Your task to perform on an android device: How do I get to the nearest electronics store? Image 0: 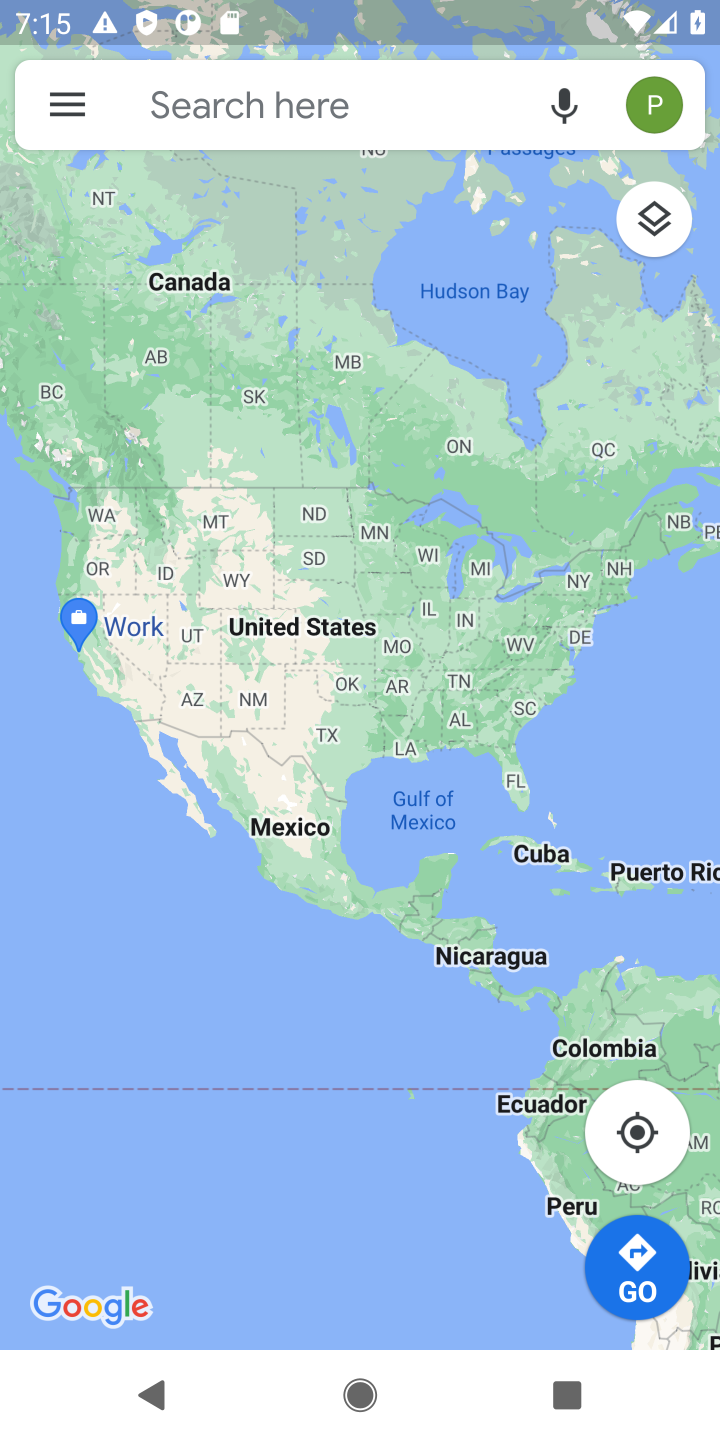
Step 0: click (351, 1408)
Your task to perform on an android device: How do I get to the nearest electronics store? Image 1: 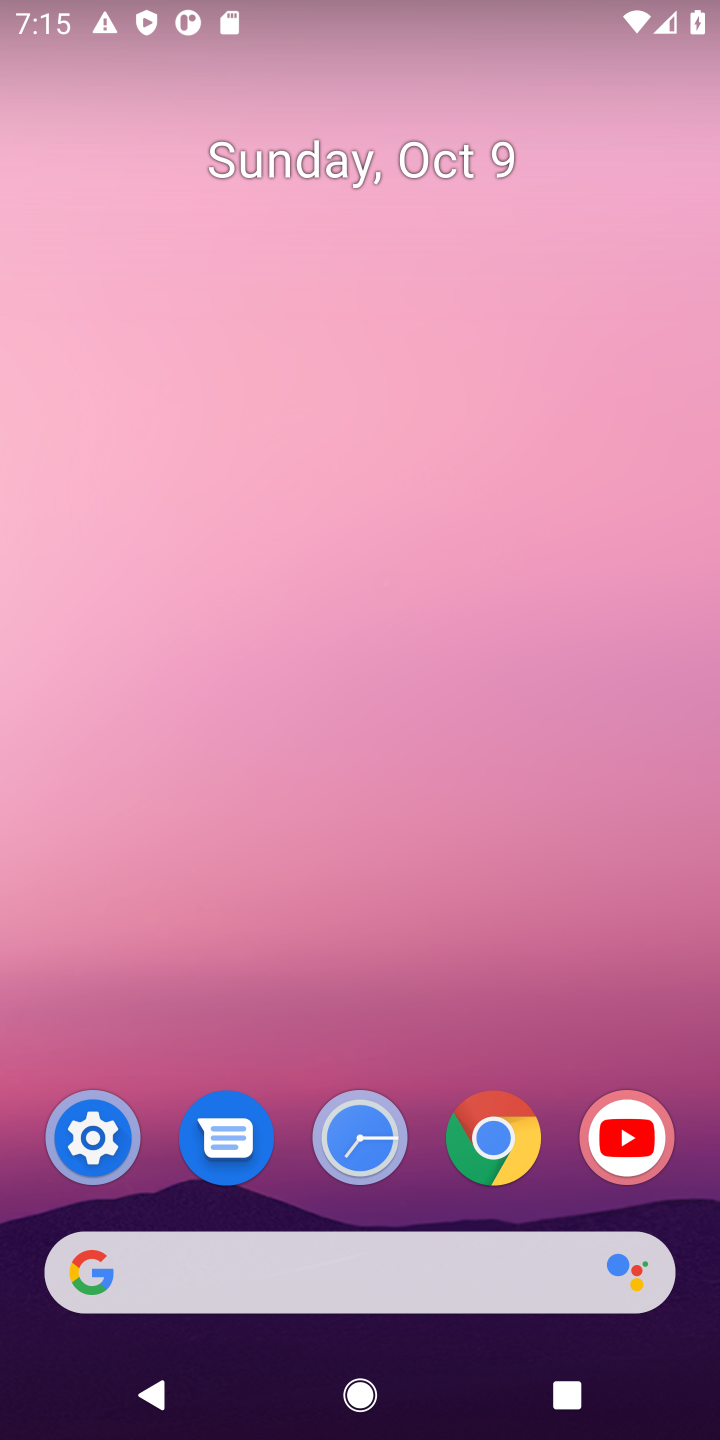
Step 1: drag from (461, 1209) to (496, 268)
Your task to perform on an android device: How do I get to the nearest electronics store? Image 2: 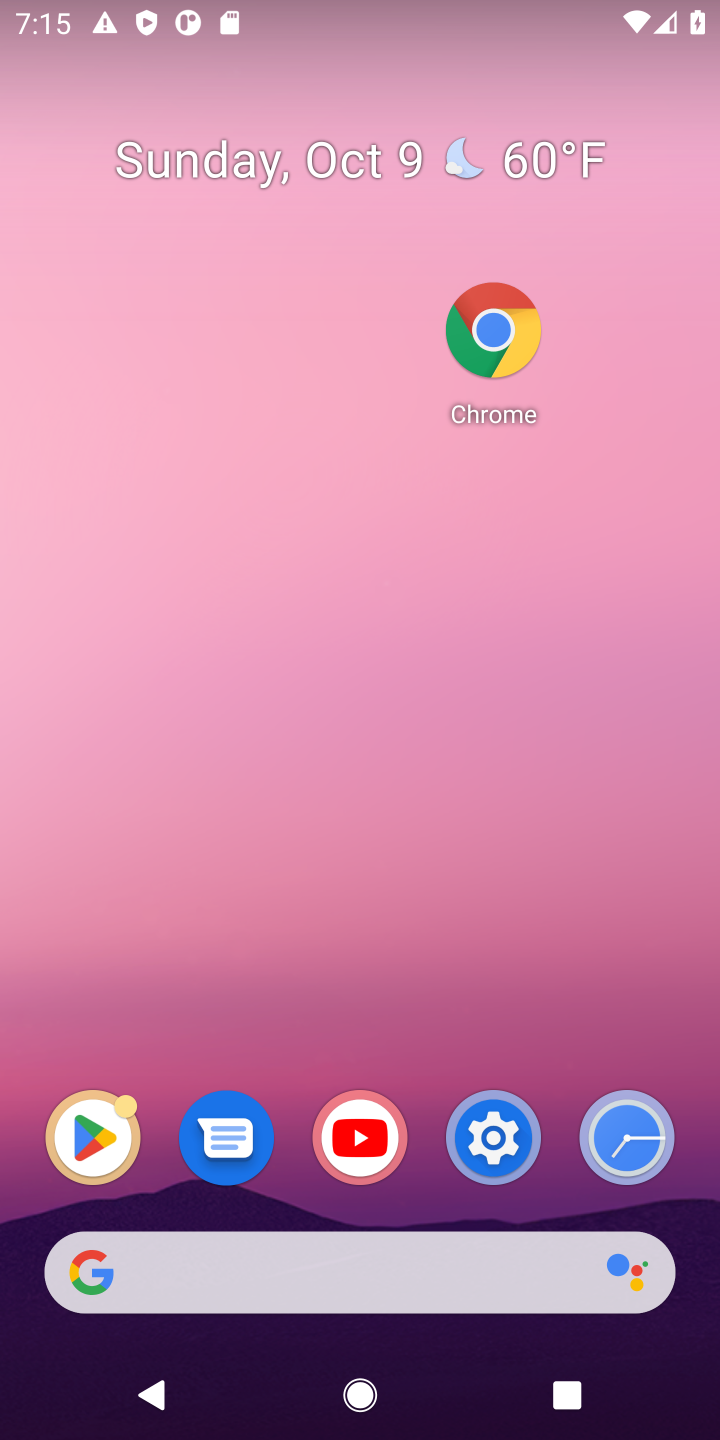
Step 2: drag from (449, 656) to (364, 33)
Your task to perform on an android device: How do I get to the nearest electronics store? Image 3: 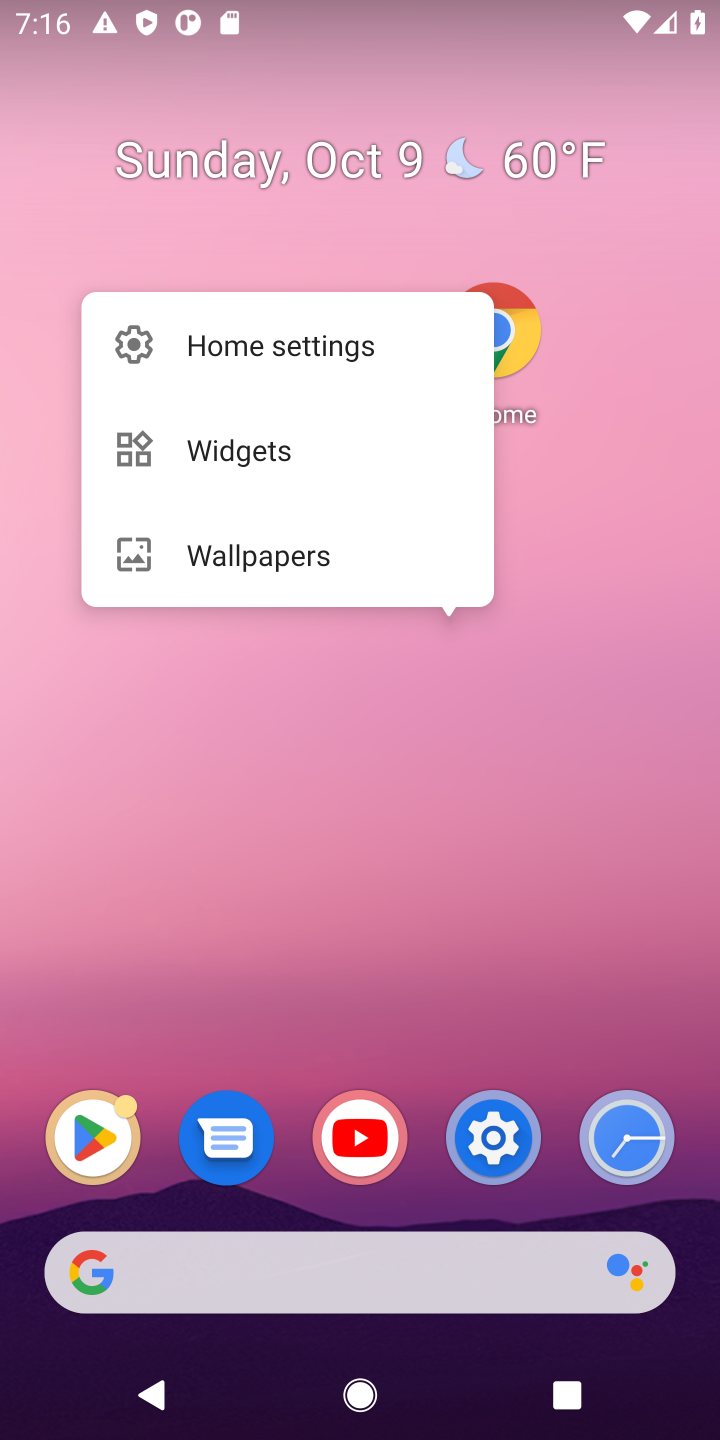
Step 3: drag from (427, 881) to (460, 564)
Your task to perform on an android device: How do I get to the nearest electronics store? Image 4: 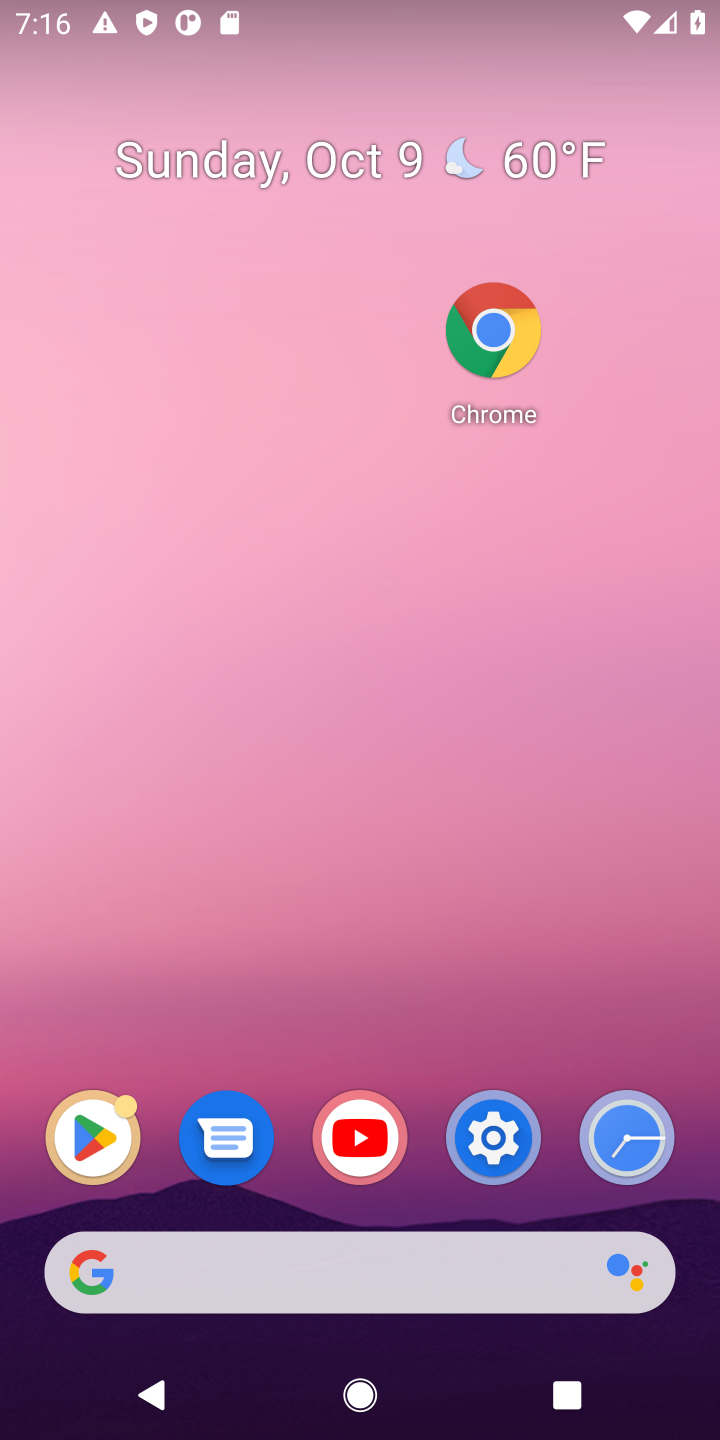
Step 4: drag from (475, 1043) to (473, 576)
Your task to perform on an android device: How do I get to the nearest electronics store? Image 5: 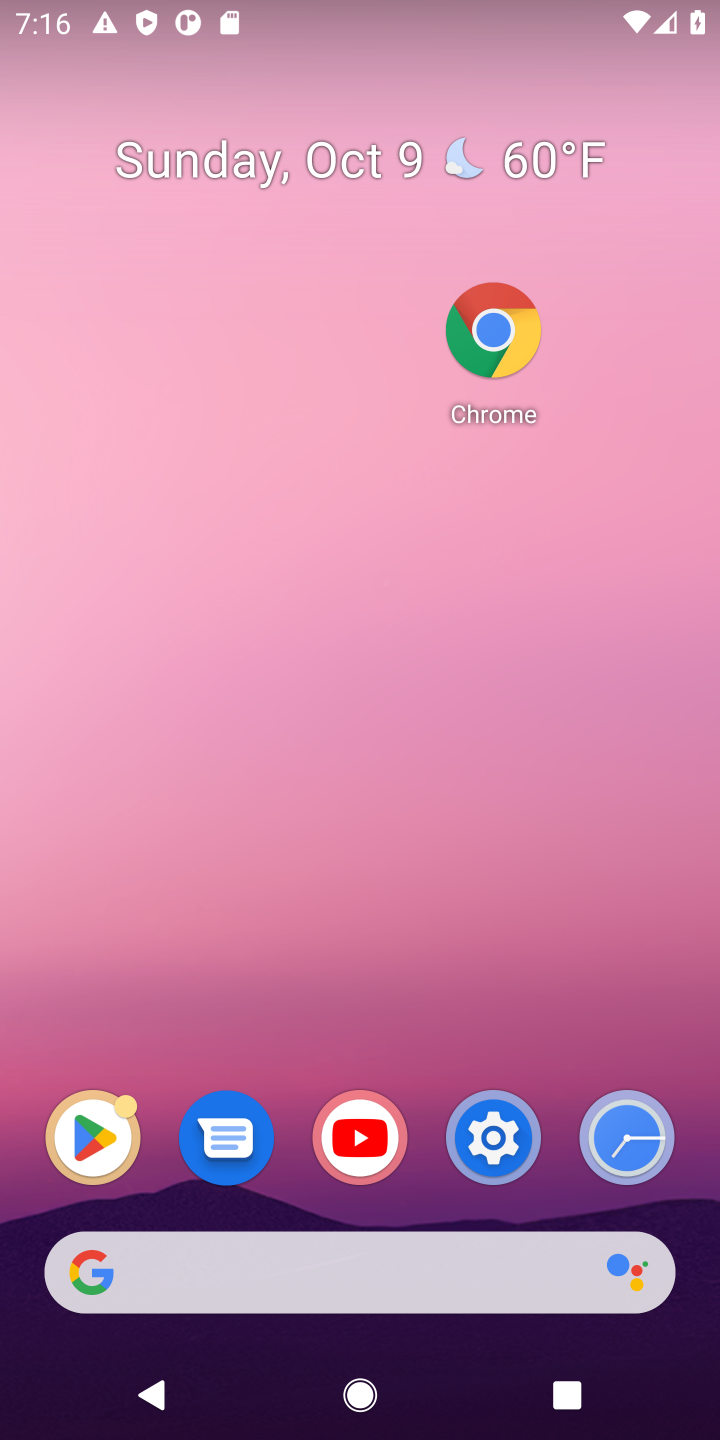
Step 5: drag from (522, 1022) to (536, 310)
Your task to perform on an android device: How do I get to the nearest electronics store? Image 6: 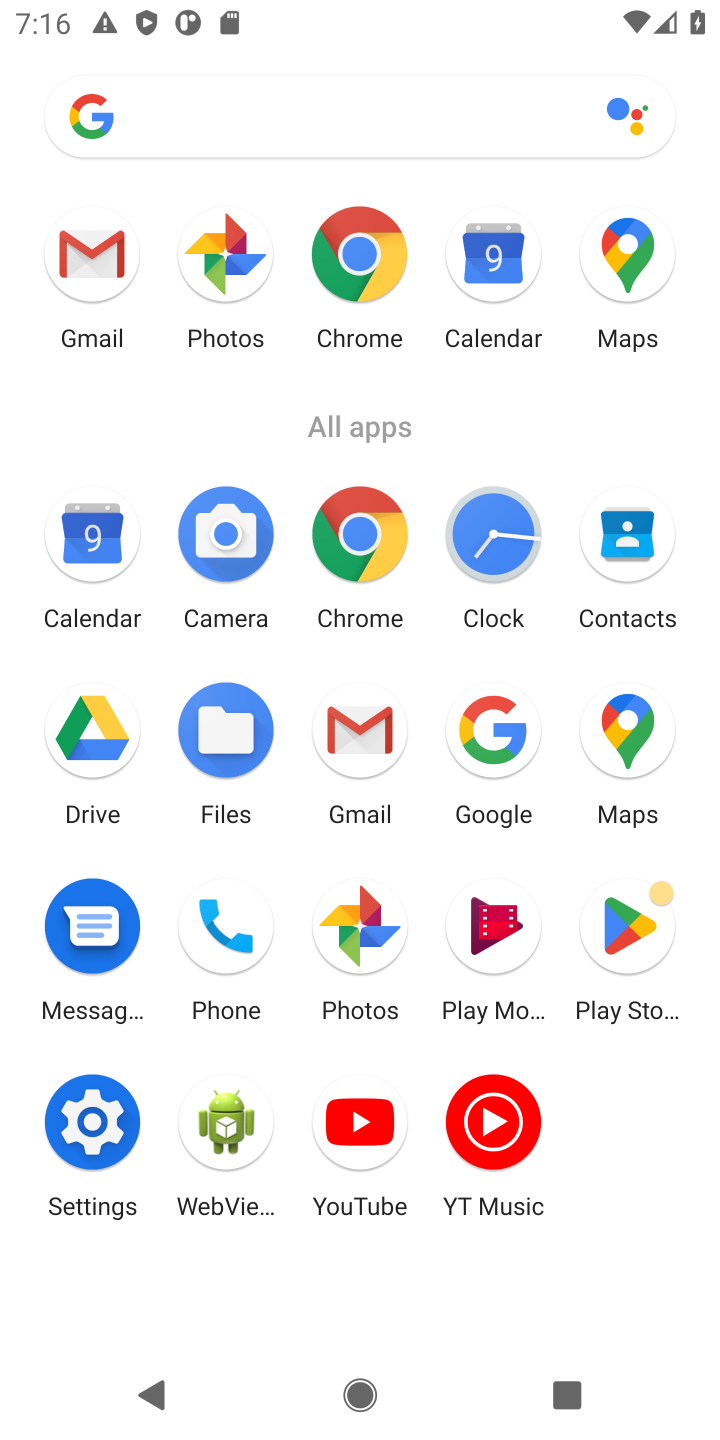
Step 6: click (628, 277)
Your task to perform on an android device: How do I get to the nearest electronics store? Image 7: 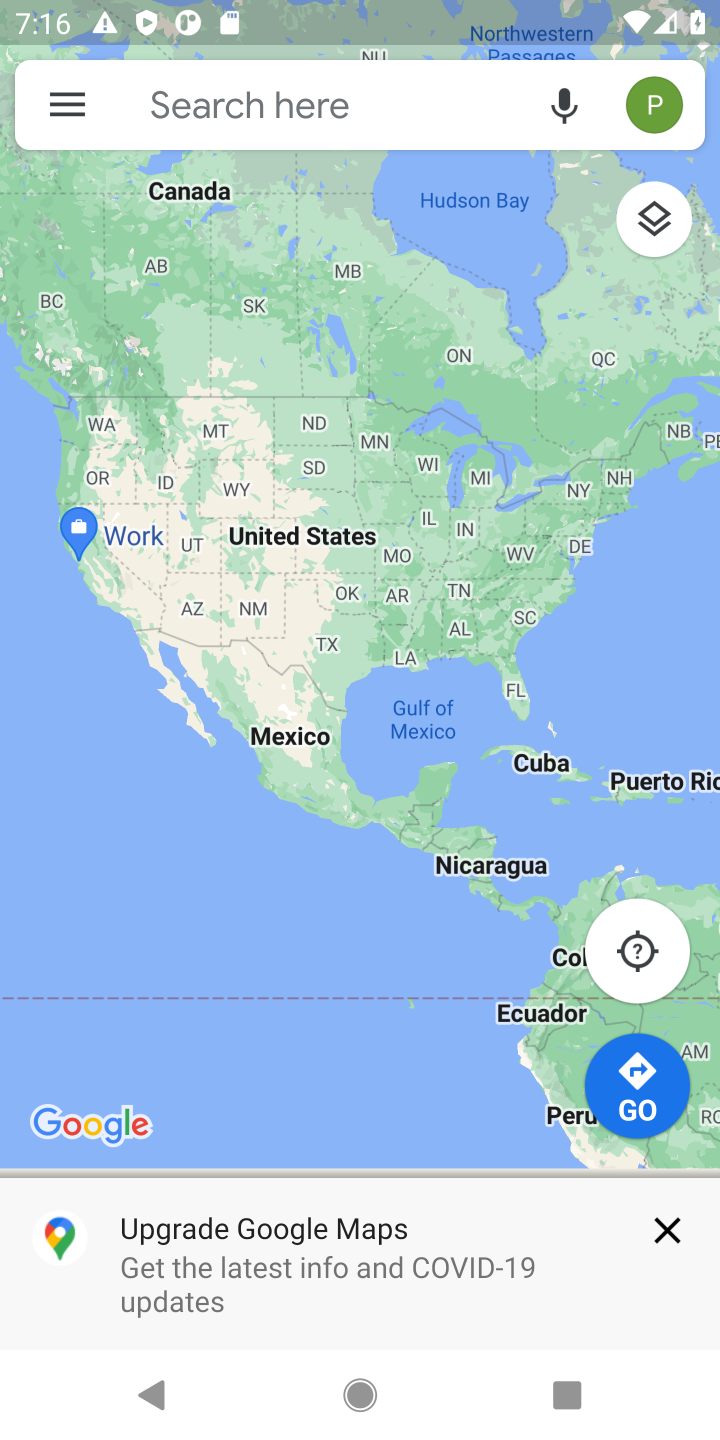
Step 7: click (210, 108)
Your task to perform on an android device: How do I get to the nearest electronics store? Image 8: 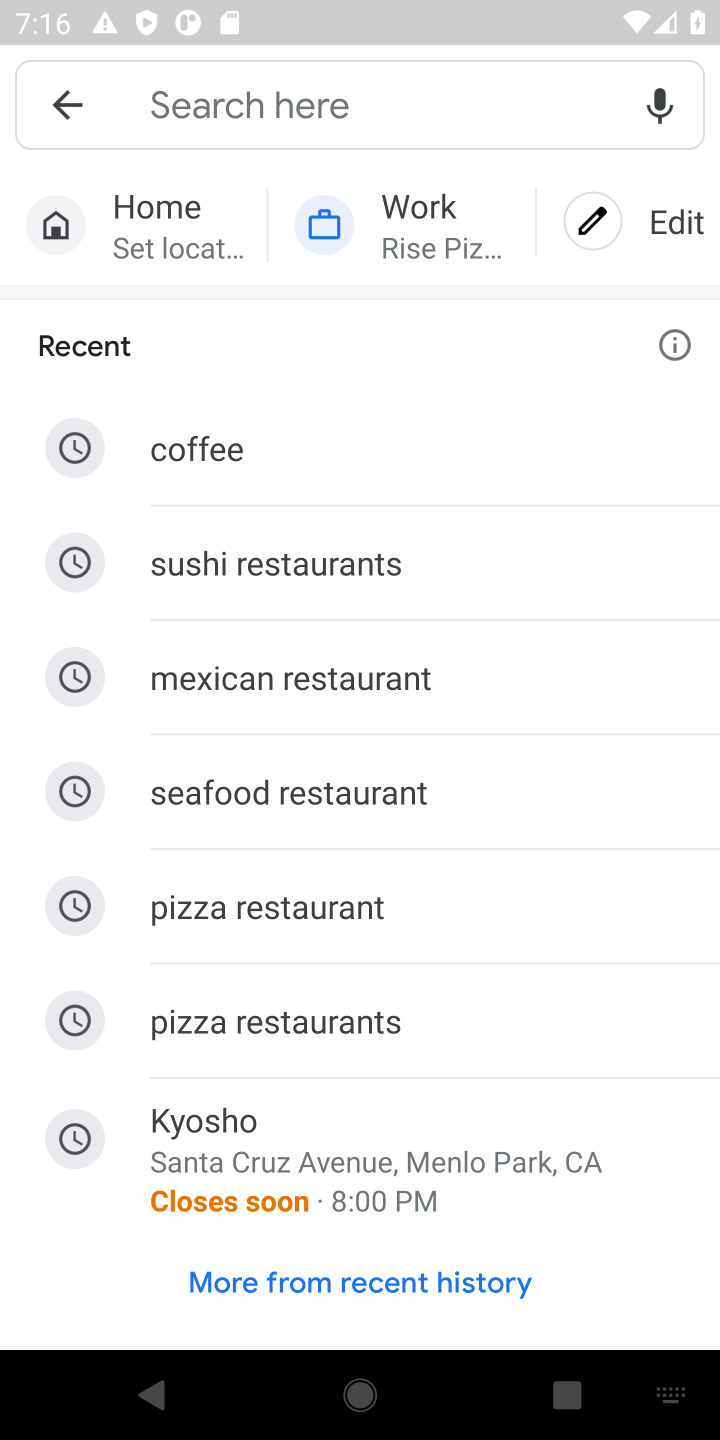
Step 8: type "electronics store"
Your task to perform on an android device: How do I get to the nearest electronics store? Image 9: 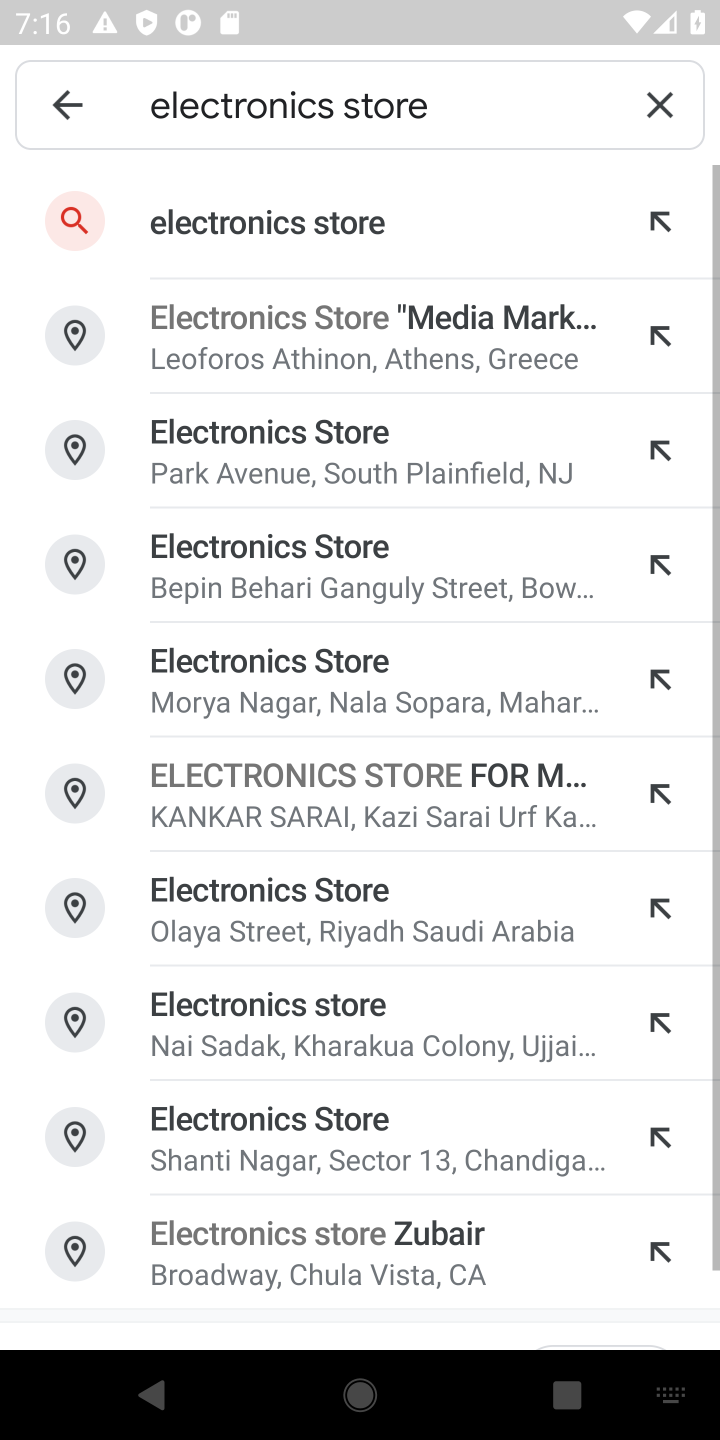
Step 9: type ""
Your task to perform on an android device: How do I get to the nearest electronics store? Image 10: 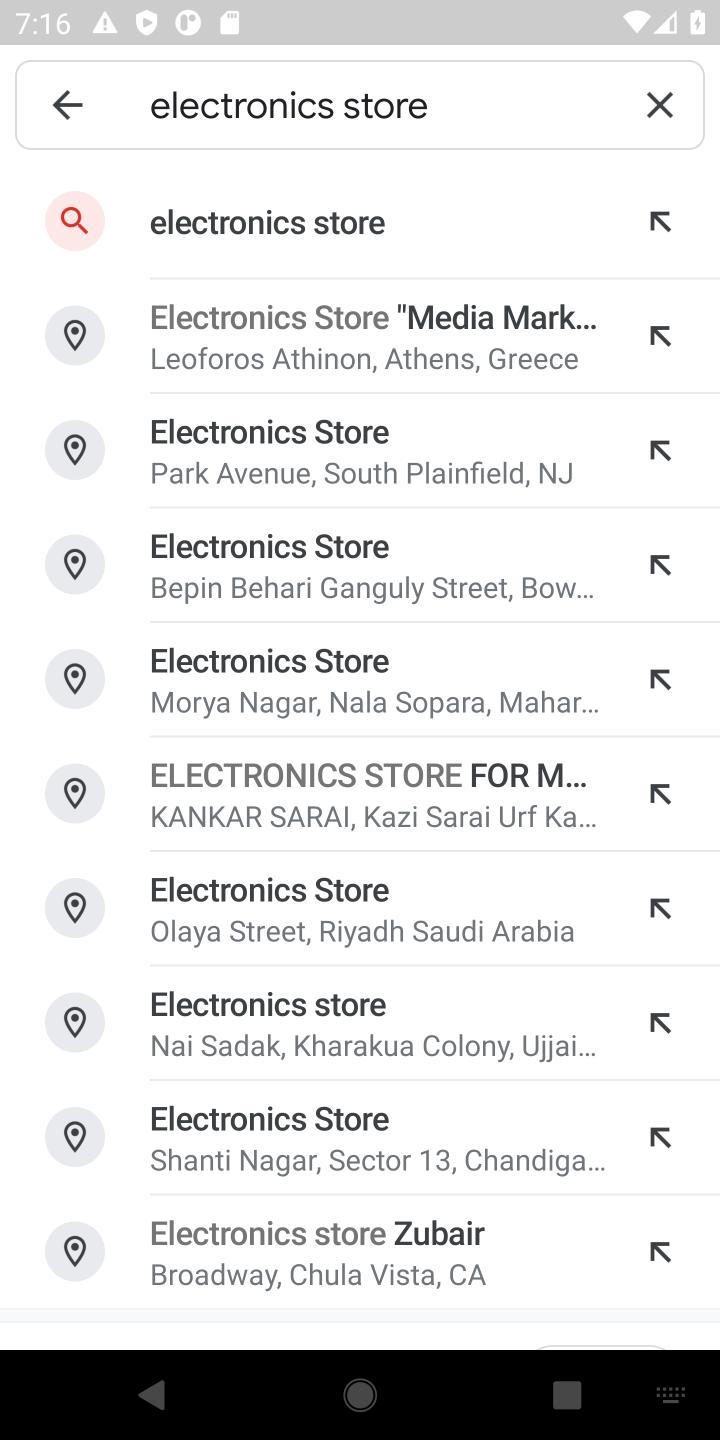
Step 10: click (329, 227)
Your task to perform on an android device: How do I get to the nearest electronics store? Image 11: 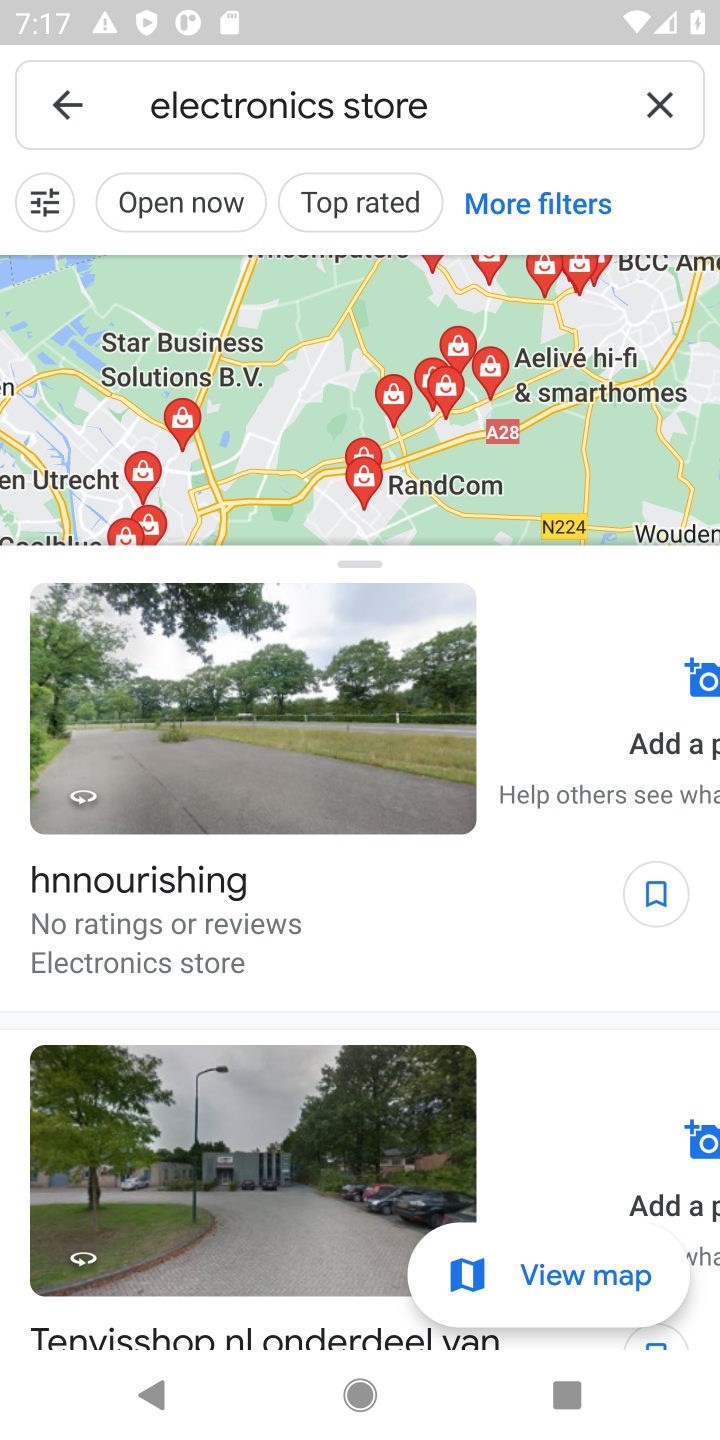
Step 11: task complete